Your task to perform on an android device: add a contact in the contacts app Image 0: 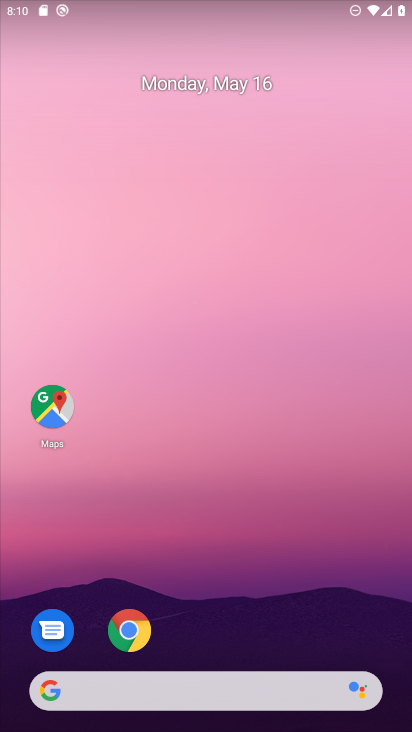
Step 0: drag from (263, 564) to (265, 160)
Your task to perform on an android device: add a contact in the contacts app Image 1: 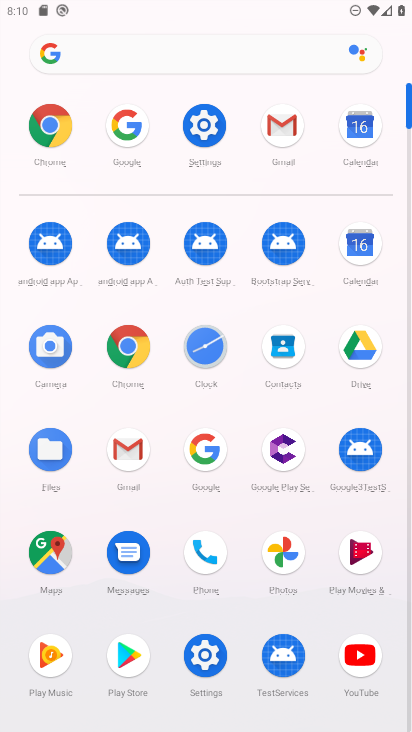
Step 1: click (286, 359)
Your task to perform on an android device: add a contact in the contacts app Image 2: 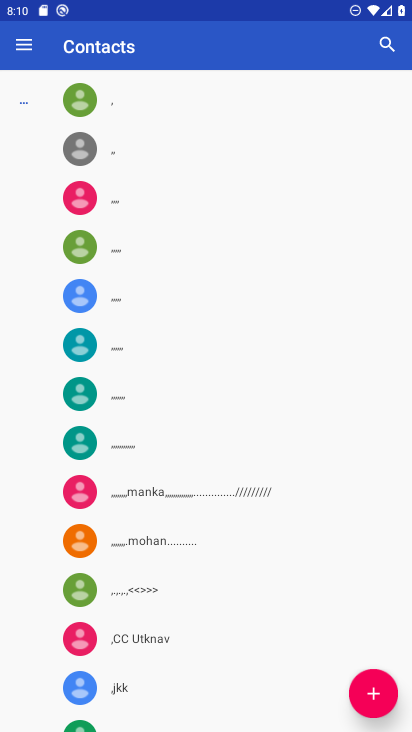
Step 2: click (366, 686)
Your task to perform on an android device: add a contact in the contacts app Image 3: 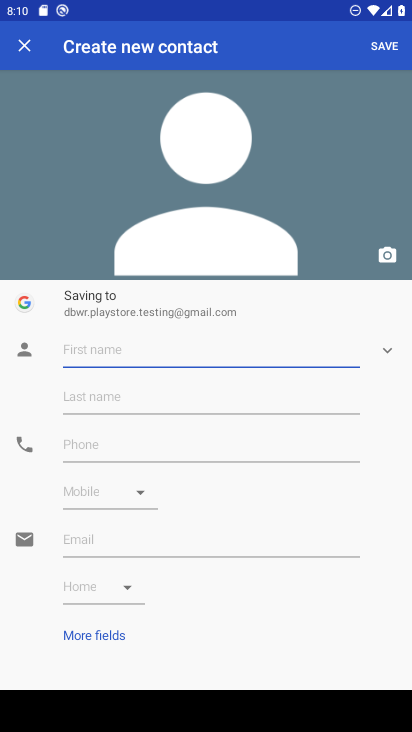
Step 3: click (93, 444)
Your task to perform on an android device: add a contact in the contacts app Image 4: 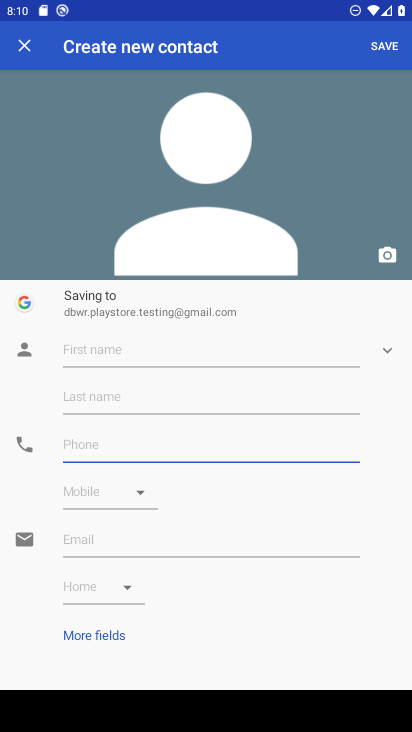
Step 4: type "69785947"
Your task to perform on an android device: add a contact in the contacts app Image 5: 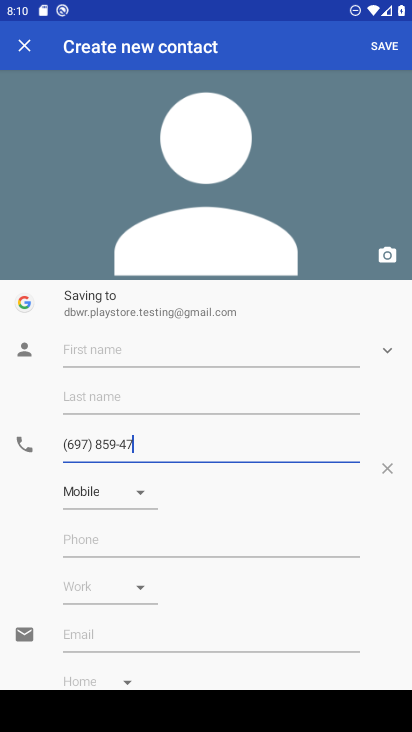
Step 5: click (208, 337)
Your task to perform on an android device: add a contact in the contacts app Image 6: 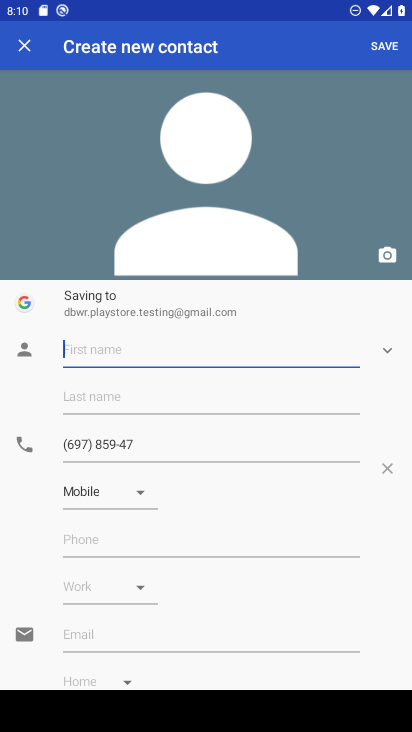
Step 6: type "rfgjhfufawfhggt"
Your task to perform on an android device: add a contact in the contacts app Image 7: 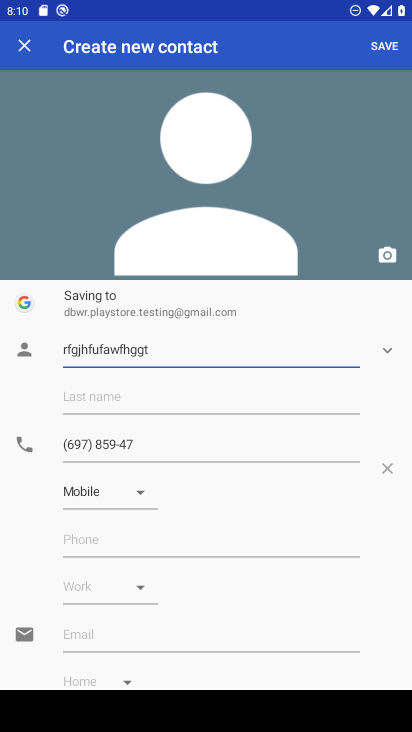
Step 7: click (383, 37)
Your task to perform on an android device: add a contact in the contacts app Image 8: 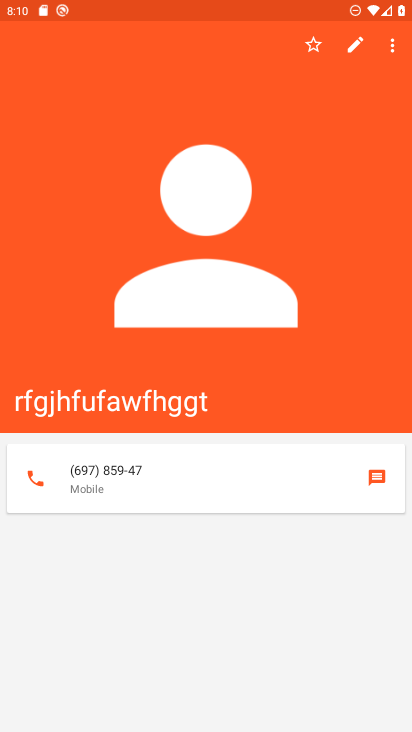
Step 8: task complete